Your task to perform on an android device: Open ESPN.com Image 0: 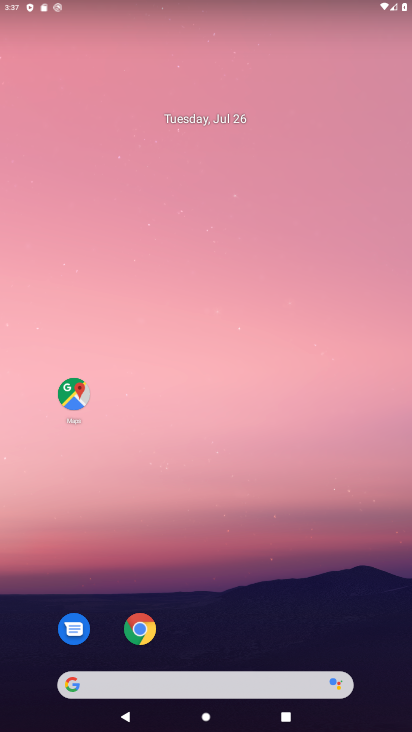
Step 0: click (138, 641)
Your task to perform on an android device: Open ESPN.com Image 1: 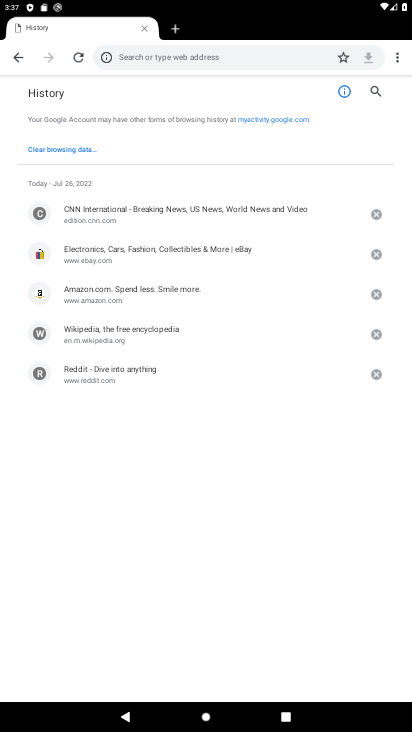
Step 1: click (151, 54)
Your task to perform on an android device: Open ESPN.com Image 2: 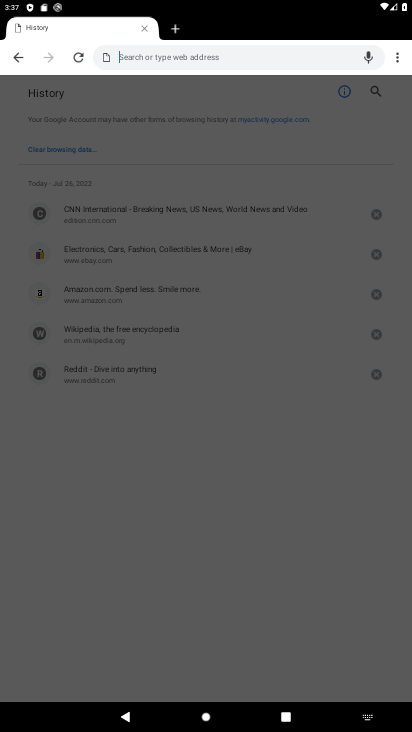
Step 2: type "espn.com"
Your task to perform on an android device: Open ESPN.com Image 3: 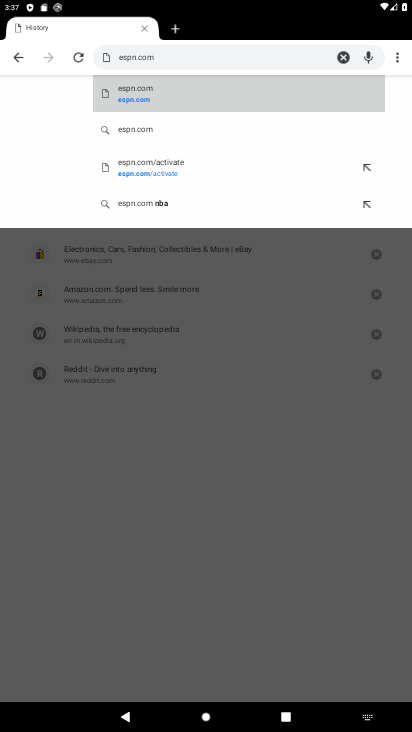
Step 3: click (124, 105)
Your task to perform on an android device: Open ESPN.com Image 4: 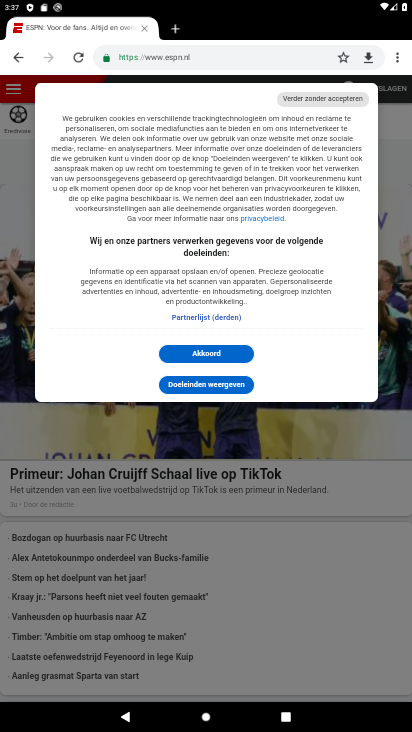
Step 4: task complete